Your task to perform on an android device: show emergency info Image 0: 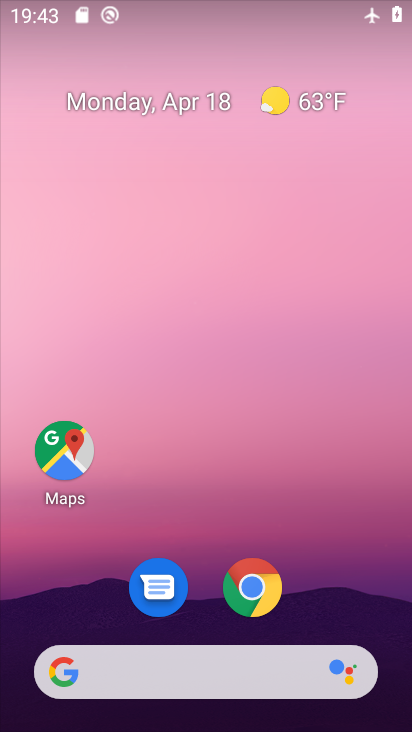
Step 0: click (348, 593)
Your task to perform on an android device: show emergency info Image 1: 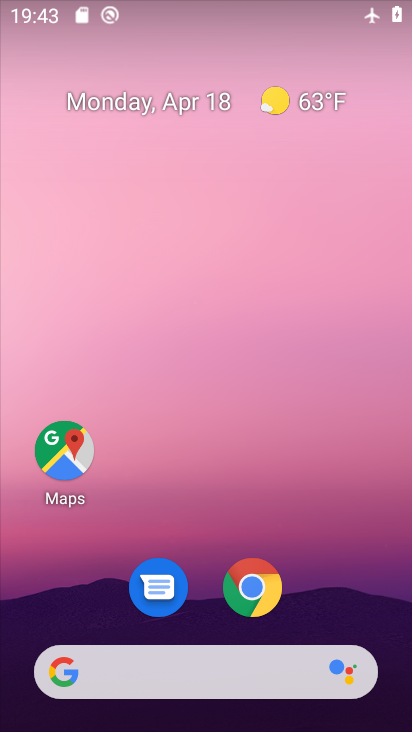
Step 1: drag from (348, 593) to (323, 89)
Your task to perform on an android device: show emergency info Image 2: 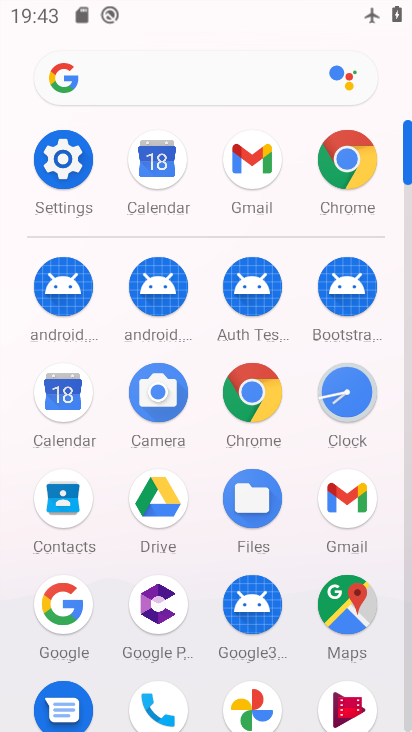
Step 2: click (77, 160)
Your task to perform on an android device: show emergency info Image 3: 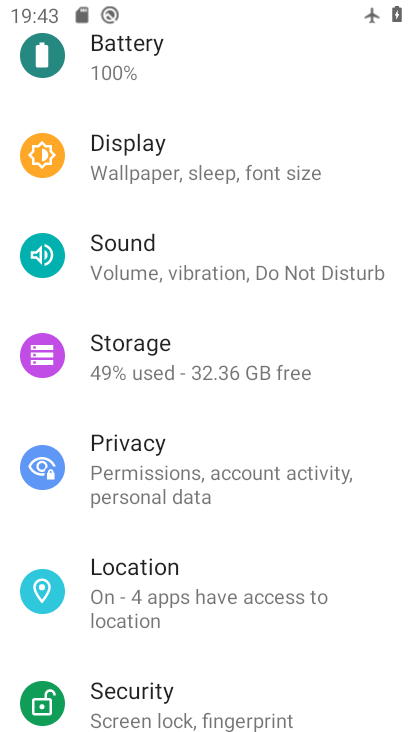
Step 3: drag from (146, 581) to (229, 224)
Your task to perform on an android device: show emergency info Image 4: 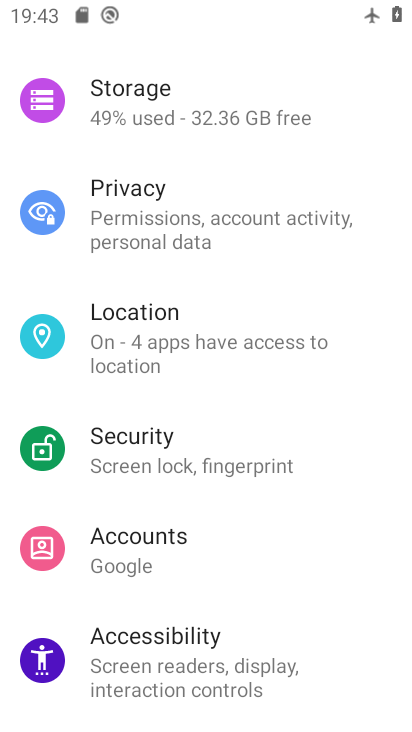
Step 4: drag from (269, 579) to (284, 337)
Your task to perform on an android device: show emergency info Image 5: 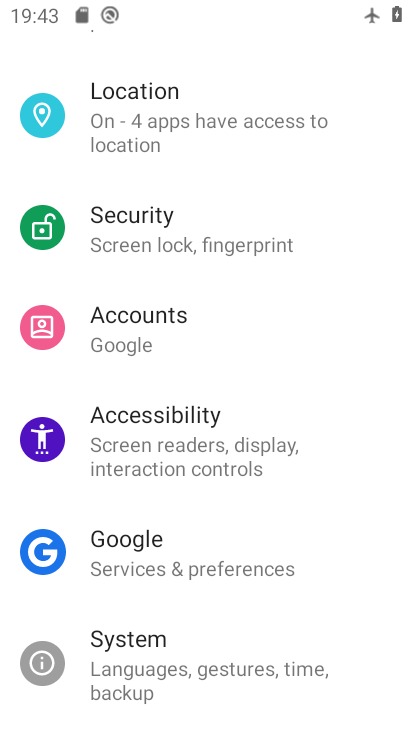
Step 5: drag from (254, 649) to (268, 243)
Your task to perform on an android device: show emergency info Image 6: 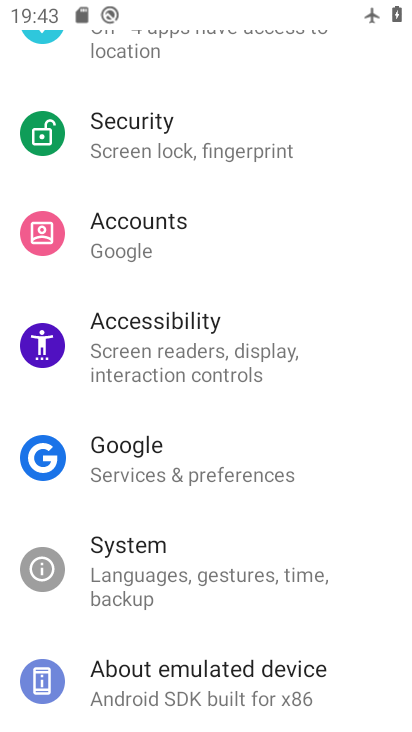
Step 6: click (239, 653)
Your task to perform on an android device: show emergency info Image 7: 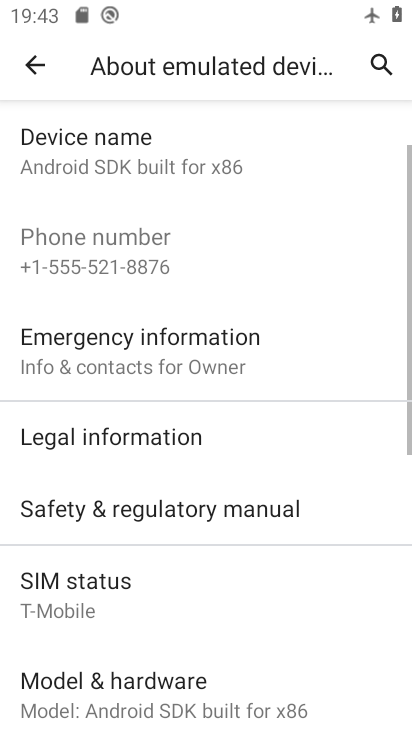
Step 7: click (196, 359)
Your task to perform on an android device: show emergency info Image 8: 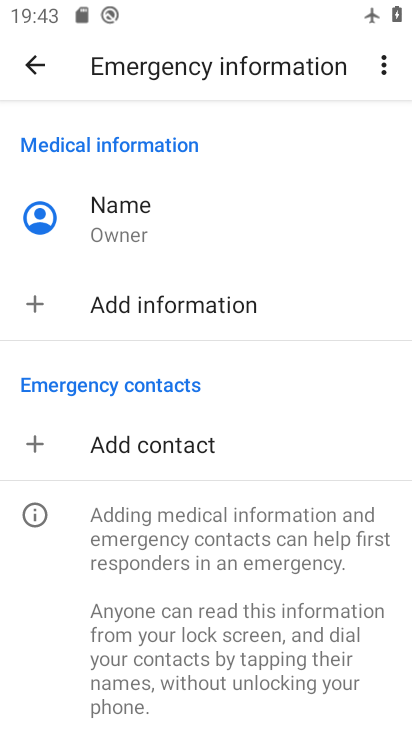
Step 8: task complete